Your task to perform on an android device: check out phone information Image 0: 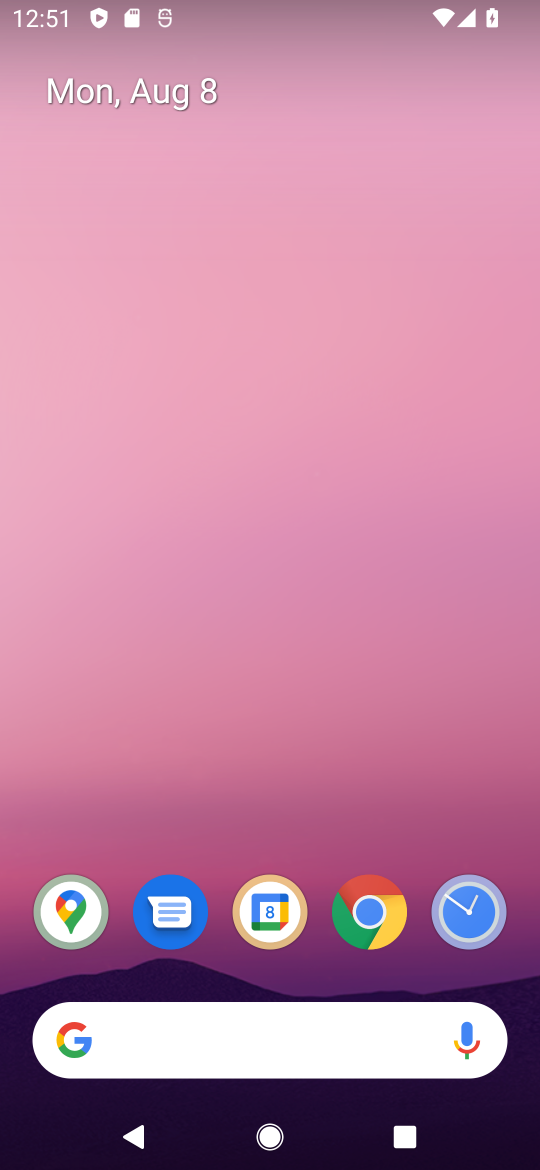
Step 0: drag from (276, 968) to (271, 269)
Your task to perform on an android device: check out phone information Image 1: 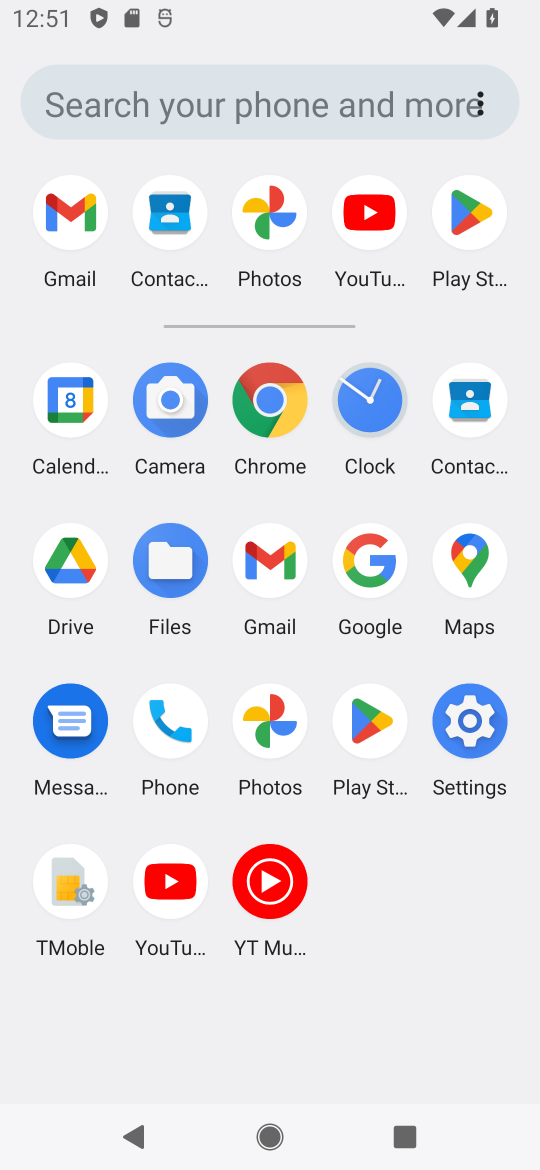
Step 1: click (458, 732)
Your task to perform on an android device: check out phone information Image 2: 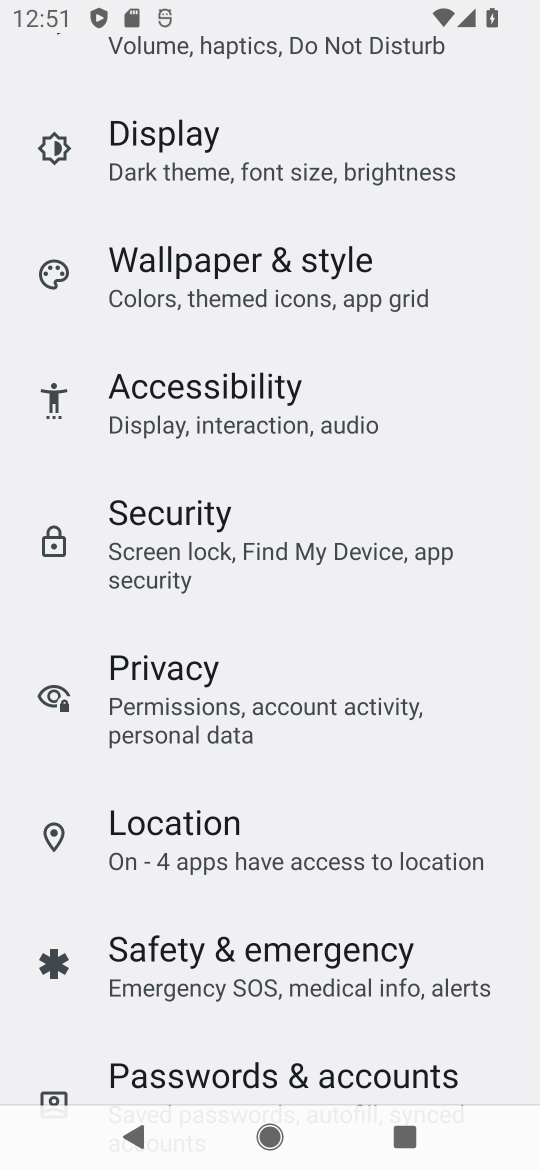
Step 2: drag from (316, 1049) to (410, 56)
Your task to perform on an android device: check out phone information Image 3: 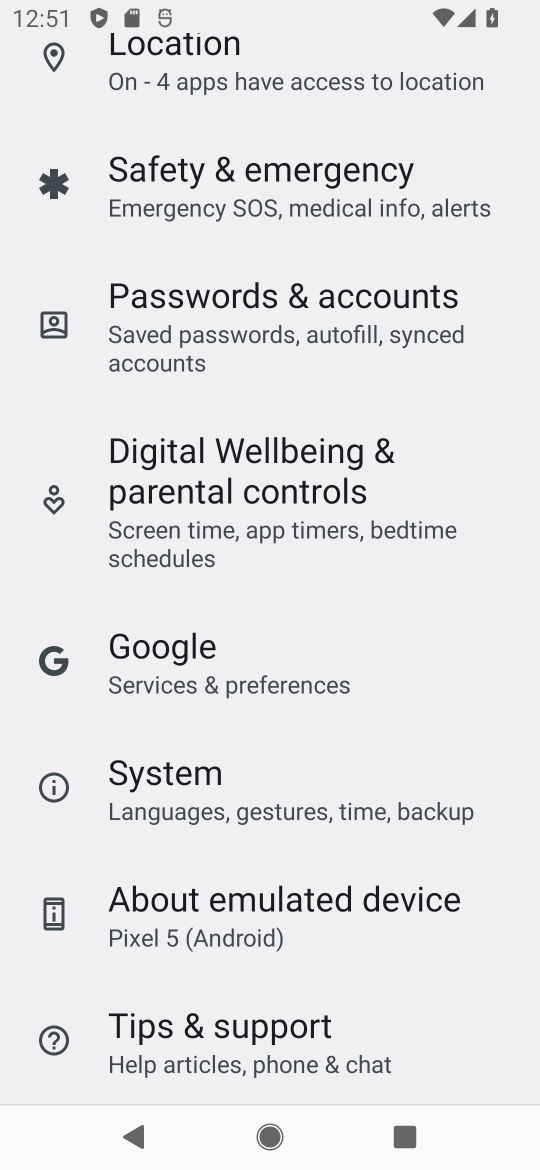
Step 3: drag from (250, 1070) to (380, 99)
Your task to perform on an android device: check out phone information Image 4: 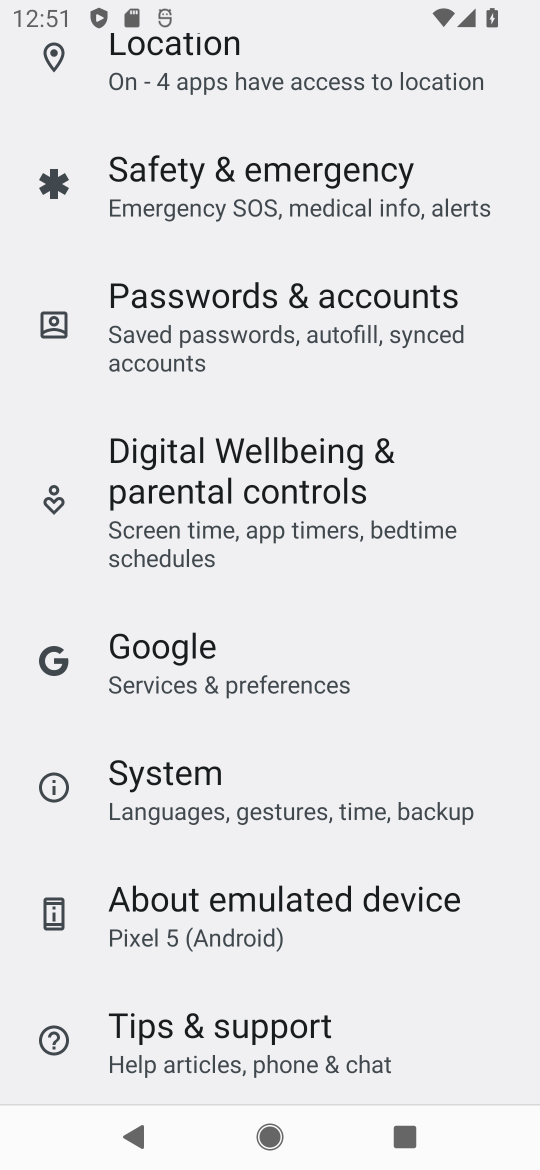
Step 4: click (274, 894)
Your task to perform on an android device: check out phone information Image 5: 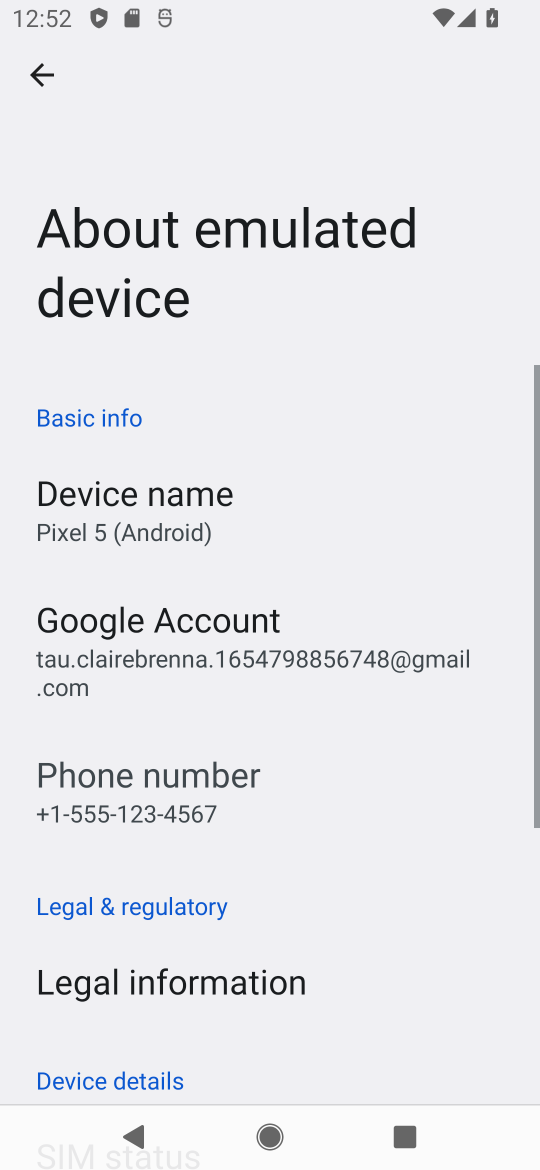
Step 5: task complete